Your task to perform on an android device: Search for "razer huntsman" on walmart, select the first entry, and add it to the cart. Image 0: 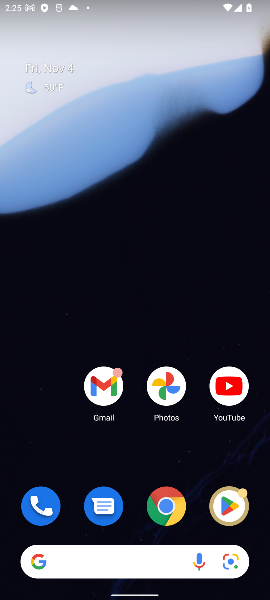
Step 0: drag from (141, 476) to (166, 19)
Your task to perform on an android device: Search for "razer huntsman" on walmart, select the first entry, and add it to the cart. Image 1: 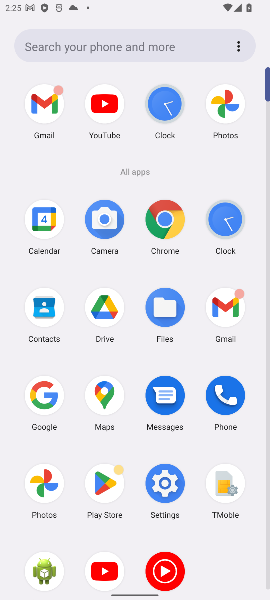
Step 1: click (171, 222)
Your task to perform on an android device: Search for "razer huntsman" on walmart, select the first entry, and add it to the cart. Image 2: 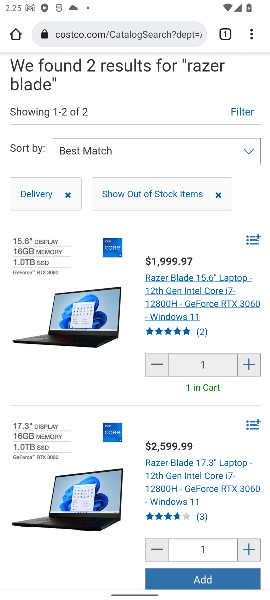
Step 2: click (150, 27)
Your task to perform on an android device: Search for "razer huntsman" on walmart, select the first entry, and add it to the cart. Image 3: 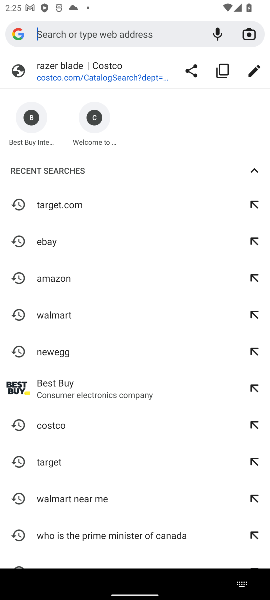
Step 3: type "walmart.com"
Your task to perform on an android device: Search for "razer huntsman" on walmart, select the first entry, and add it to the cart. Image 4: 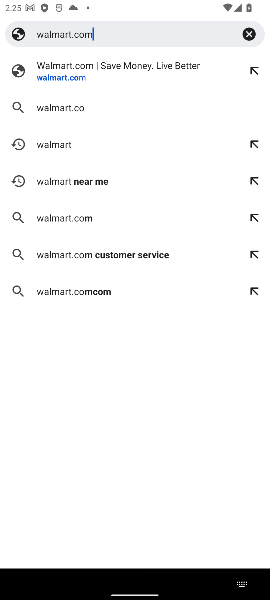
Step 4: press enter
Your task to perform on an android device: Search for "razer huntsman" on walmart, select the first entry, and add it to the cart. Image 5: 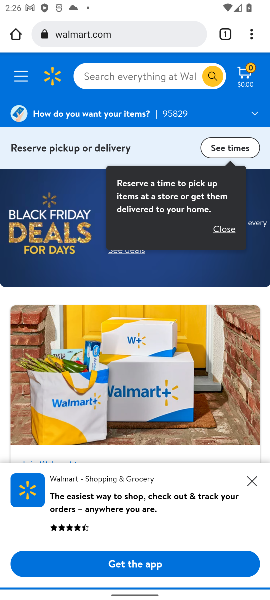
Step 5: click (139, 70)
Your task to perform on an android device: Search for "razer huntsman" on walmart, select the first entry, and add it to the cart. Image 6: 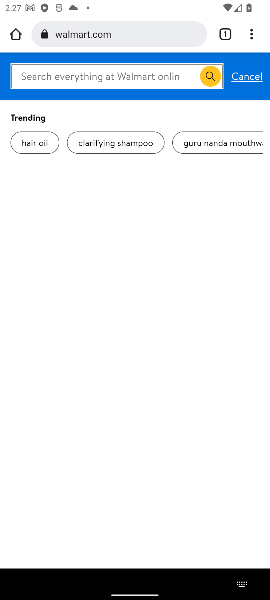
Step 6: type "razer huntsman"
Your task to perform on an android device: Search for "razer huntsman" on walmart, select the first entry, and add it to the cart. Image 7: 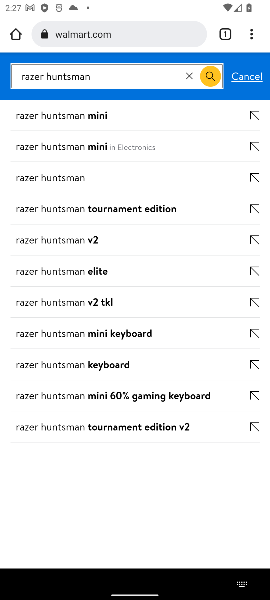
Step 7: press enter
Your task to perform on an android device: Search for "razer huntsman" on walmart, select the first entry, and add it to the cart. Image 8: 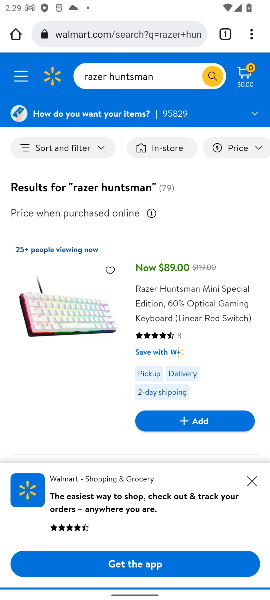
Step 8: drag from (151, 345) to (158, 276)
Your task to perform on an android device: Search for "razer huntsman" on walmart, select the first entry, and add it to the cart. Image 9: 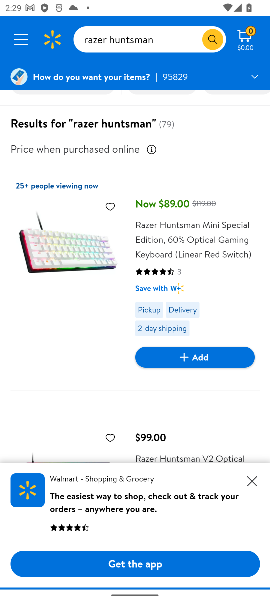
Step 9: click (217, 350)
Your task to perform on an android device: Search for "razer huntsman" on walmart, select the first entry, and add it to the cart. Image 10: 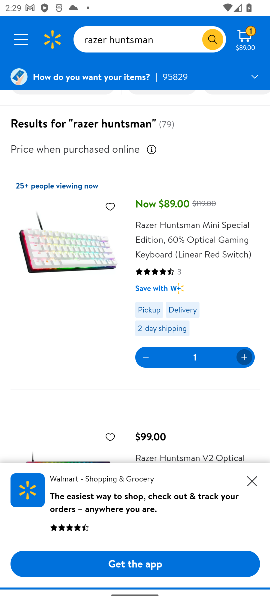
Step 10: task complete